Your task to perform on an android device: change alarm snooze length Image 0: 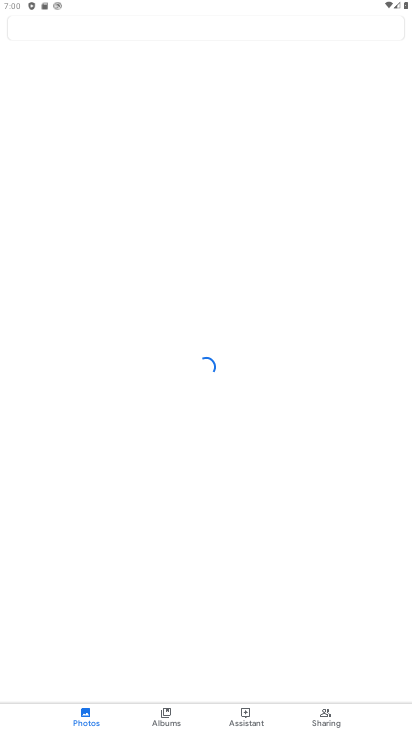
Step 0: press home button
Your task to perform on an android device: change alarm snooze length Image 1: 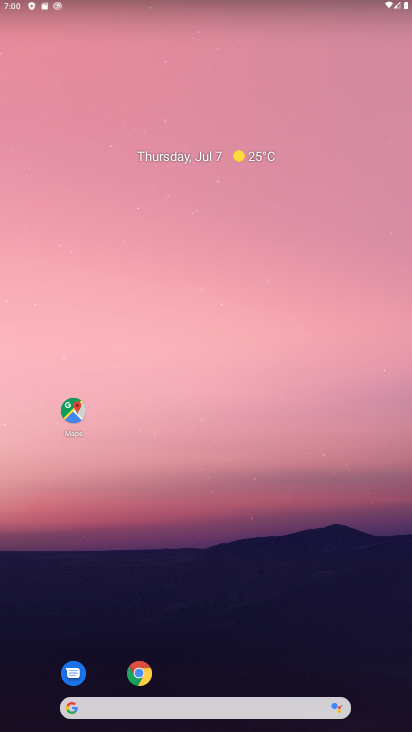
Step 1: drag from (265, 719) to (225, 213)
Your task to perform on an android device: change alarm snooze length Image 2: 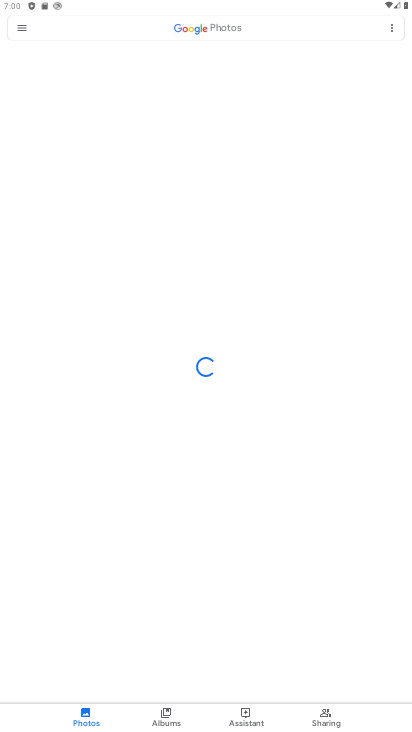
Step 2: press home button
Your task to perform on an android device: change alarm snooze length Image 3: 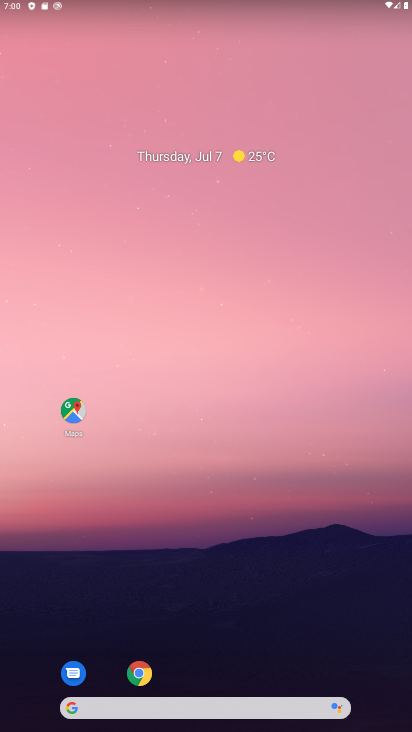
Step 3: drag from (313, 715) to (147, 310)
Your task to perform on an android device: change alarm snooze length Image 4: 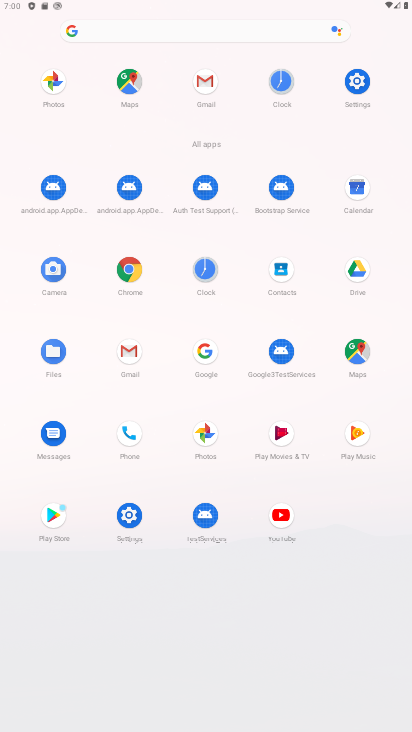
Step 4: click (204, 286)
Your task to perform on an android device: change alarm snooze length Image 5: 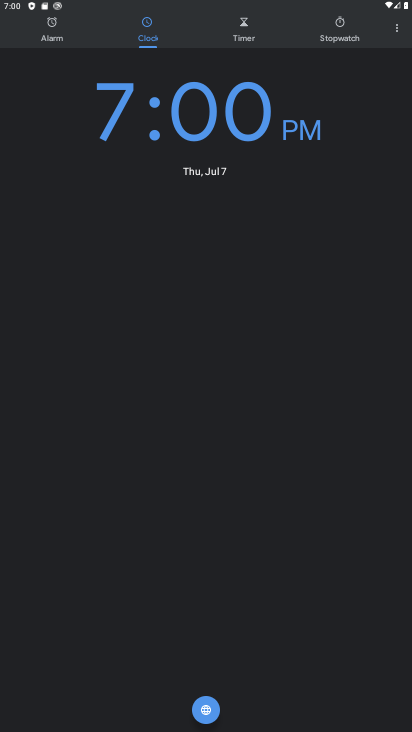
Step 5: click (388, 34)
Your task to perform on an android device: change alarm snooze length Image 6: 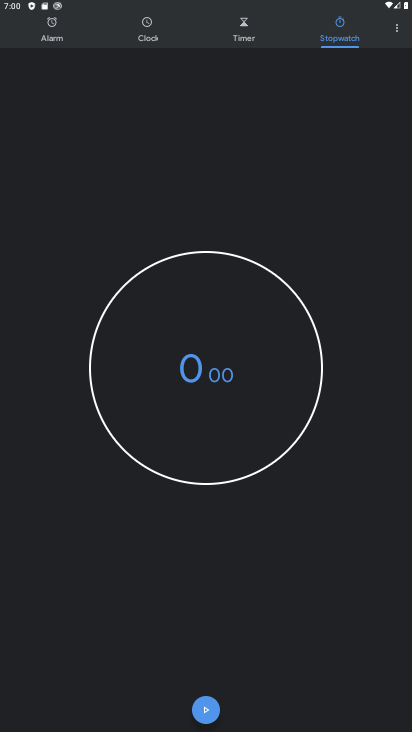
Step 6: click (402, 29)
Your task to perform on an android device: change alarm snooze length Image 7: 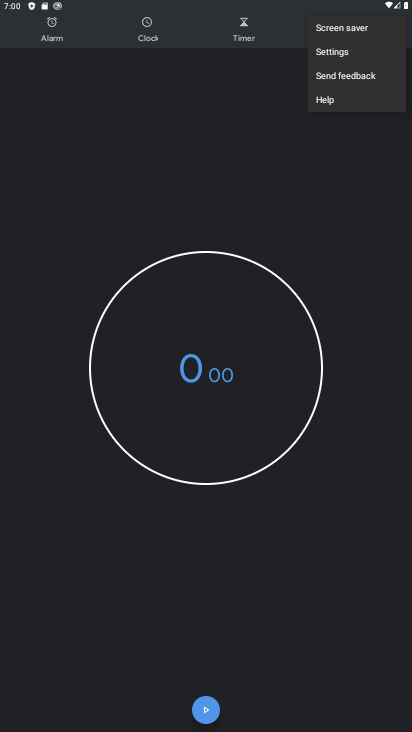
Step 7: click (334, 51)
Your task to perform on an android device: change alarm snooze length Image 8: 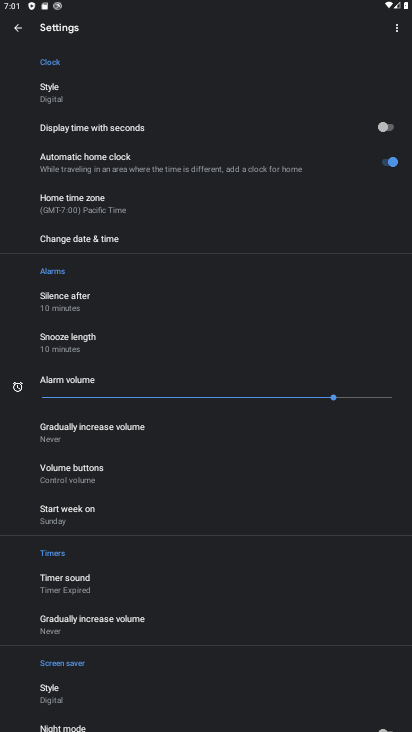
Step 8: click (92, 348)
Your task to perform on an android device: change alarm snooze length Image 9: 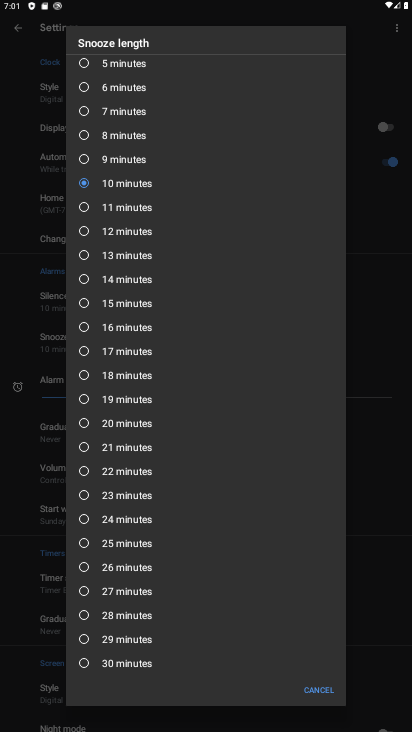
Step 9: click (119, 318)
Your task to perform on an android device: change alarm snooze length Image 10: 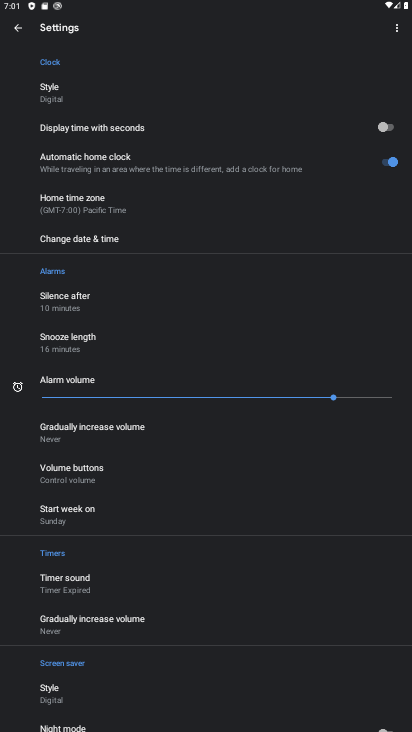
Step 10: task complete